Your task to perform on an android device: check battery use Image 0: 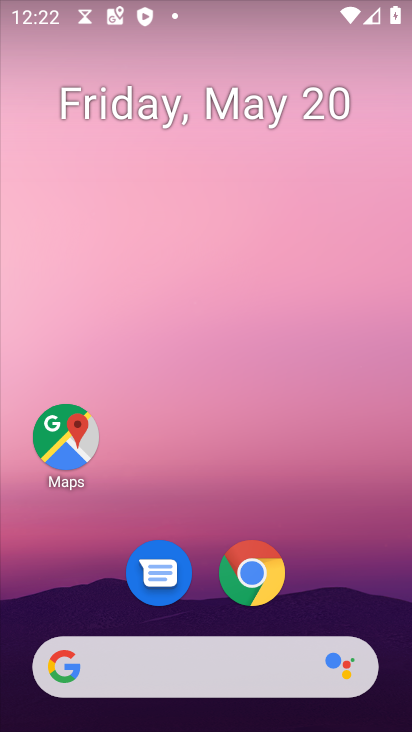
Step 0: drag from (316, 588) to (270, 5)
Your task to perform on an android device: check battery use Image 1: 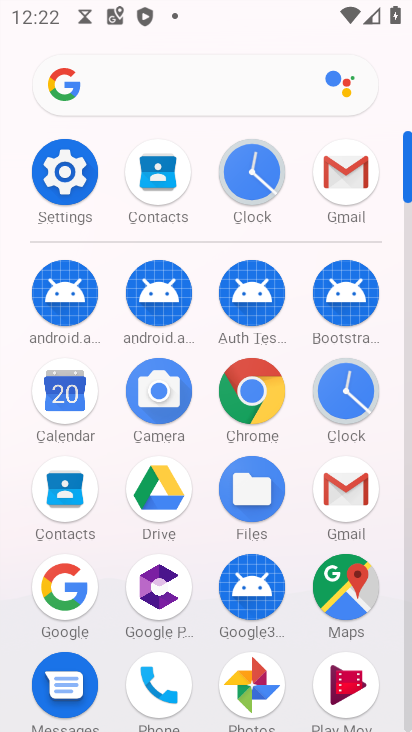
Step 1: click (77, 179)
Your task to perform on an android device: check battery use Image 2: 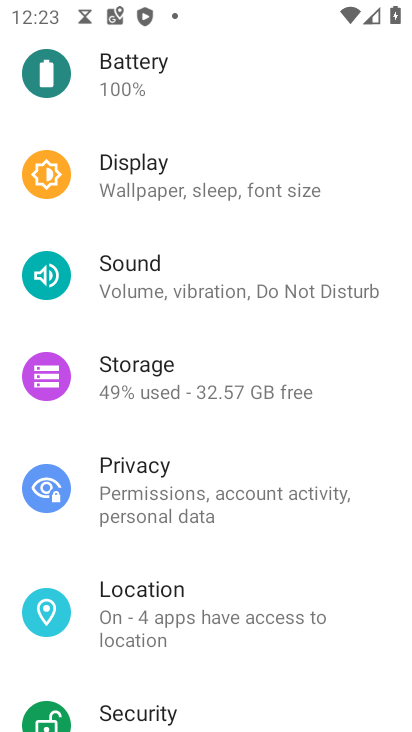
Step 2: click (123, 88)
Your task to perform on an android device: check battery use Image 3: 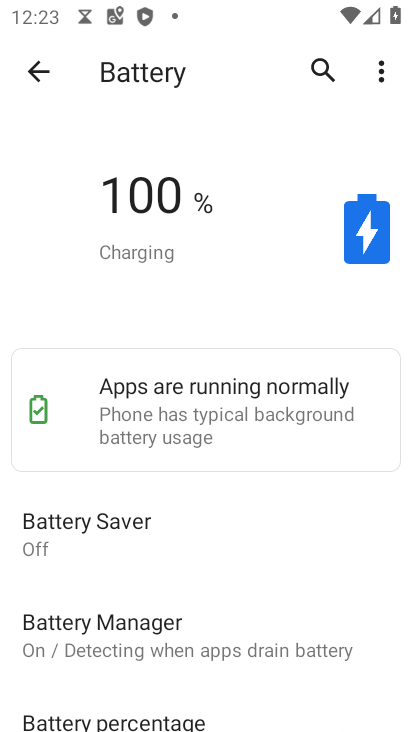
Step 3: click (380, 71)
Your task to perform on an android device: check battery use Image 4: 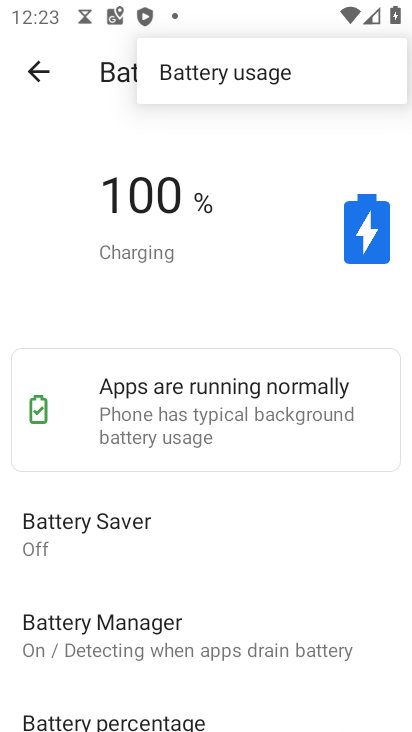
Step 4: click (278, 63)
Your task to perform on an android device: check battery use Image 5: 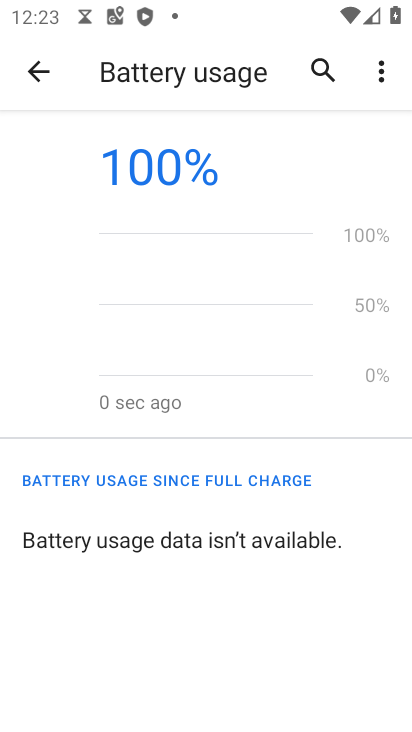
Step 5: task complete